Your task to perform on an android device: Open Amazon Image 0: 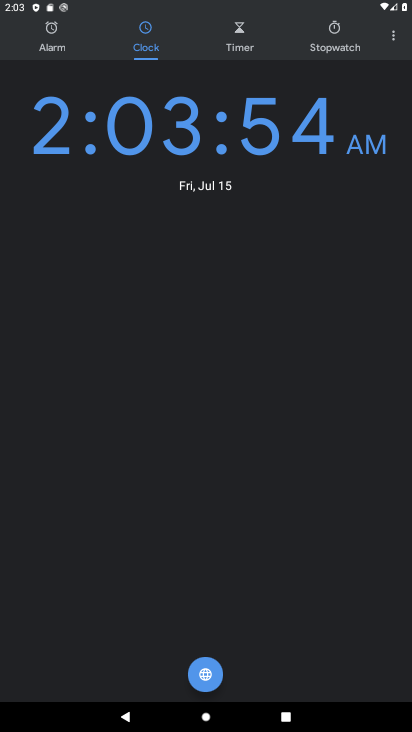
Step 0: press back button
Your task to perform on an android device: Open Amazon Image 1: 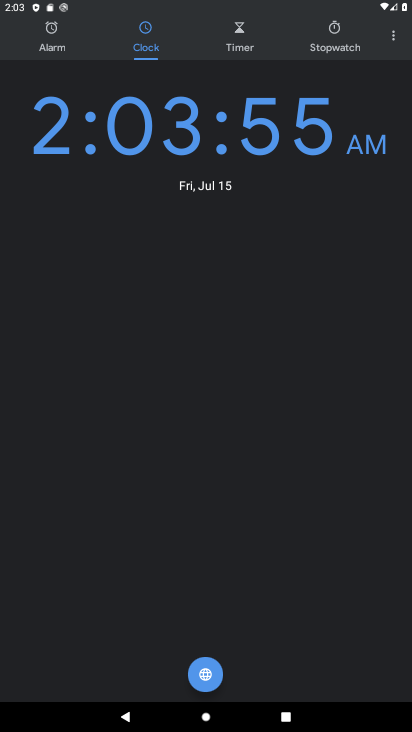
Step 1: press back button
Your task to perform on an android device: Open Amazon Image 2: 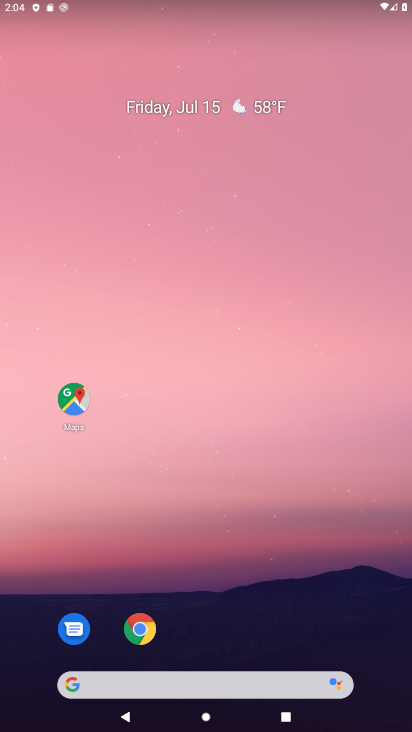
Step 2: click (192, 103)
Your task to perform on an android device: Open Amazon Image 3: 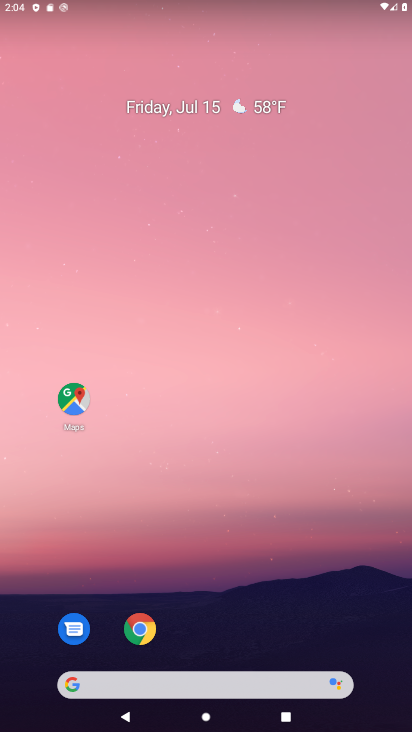
Step 3: drag from (154, 222) to (154, 126)
Your task to perform on an android device: Open Amazon Image 4: 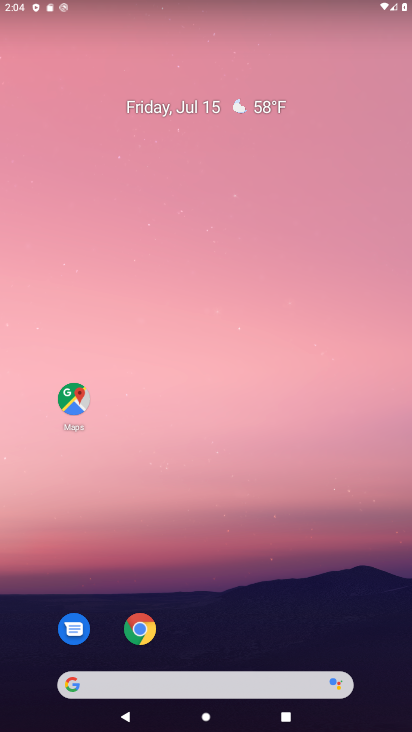
Step 4: drag from (179, 427) to (219, 49)
Your task to perform on an android device: Open Amazon Image 5: 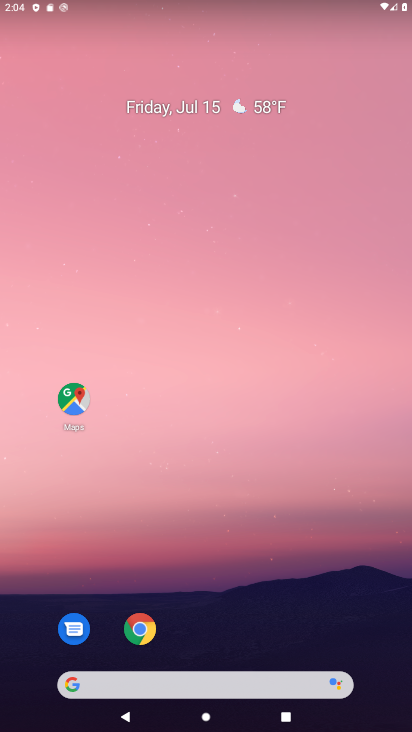
Step 5: drag from (207, 460) to (246, 189)
Your task to perform on an android device: Open Amazon Image 6: 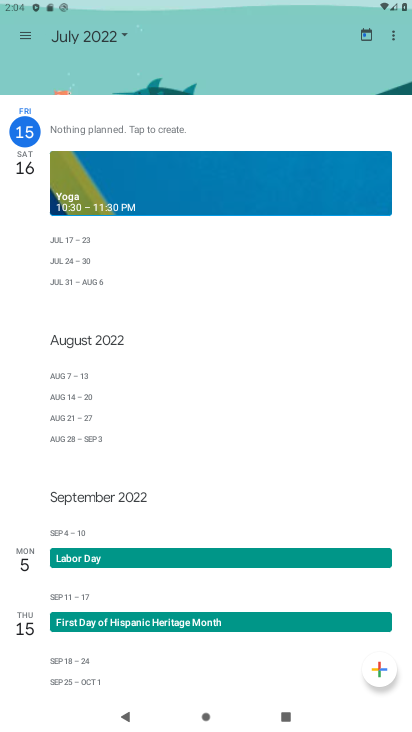
Step 6: click (169, 608)
Your task to perform on an android device: Open Amazon Image 7: 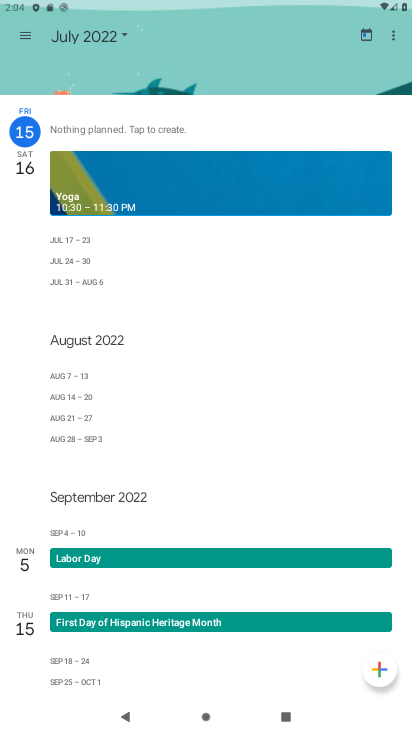
Step 7: drag from (393, 37) to (411, 133)
Your task to perform on an android device: Open Amazon Image 8: 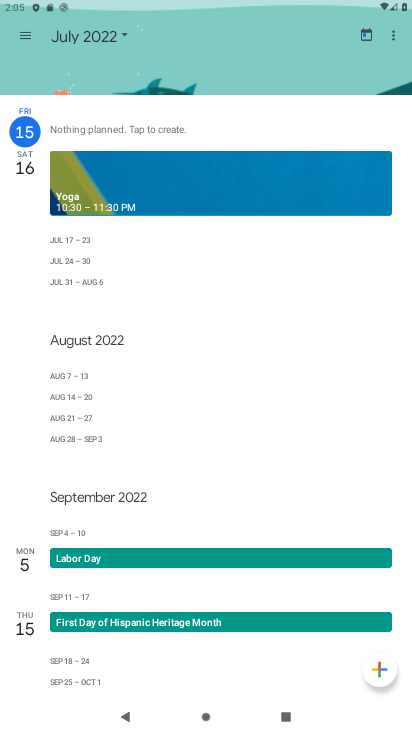
Step 8: press back button
Your task to perform on an android device: Open Amazon Image 9: 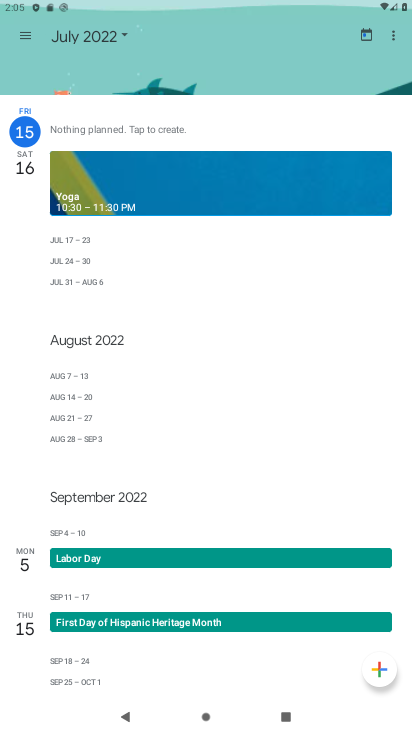
Step 9: press back button
Your task to perform on an android device: Open Amazon Image 10: 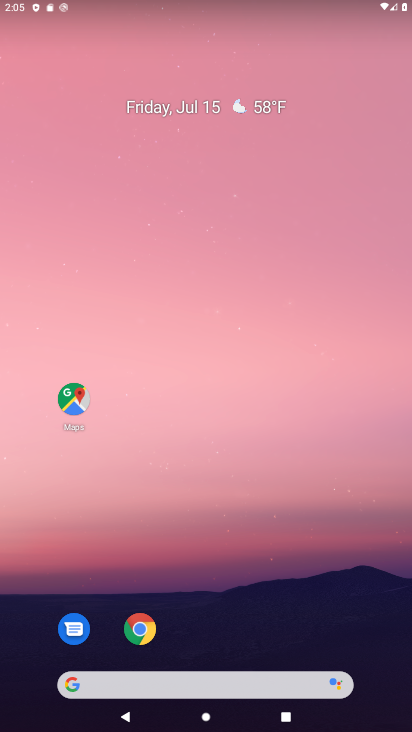
Step 10: drag from (211, 351) to (200, 153)
Your task to perform on an android device: Open Amazon Image 11: 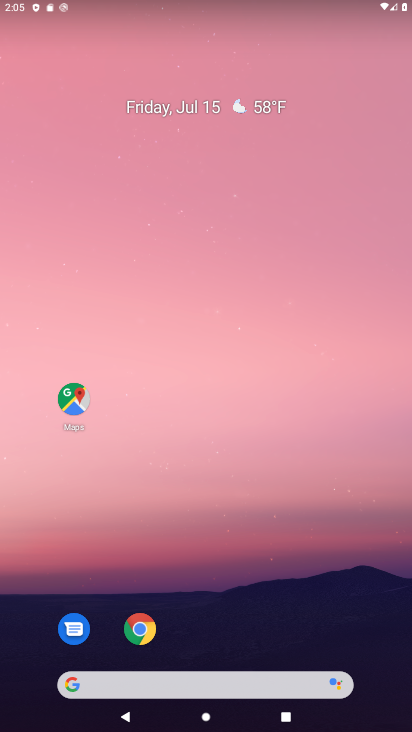
Step 11: drag from (216, 630) to (140, 357)
Your task to perform on an android device: Open Amazon Image 12: 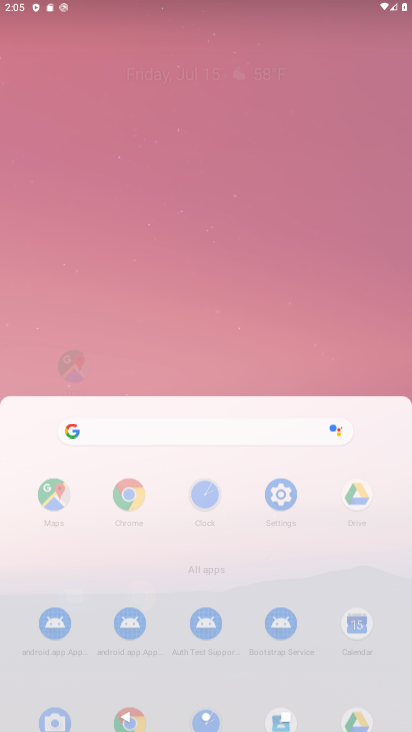
Step 12: drag from (189, 493) to (194, 318)
Your task to perform on an android device: Open Amazon Image 13: 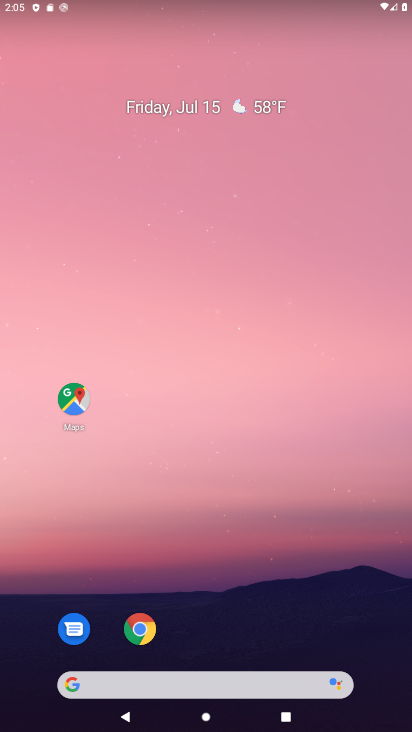
Step 13: drag from (199, 614) to (113, 46)
Your task to perform on an android device: Open Amazon Image 14: 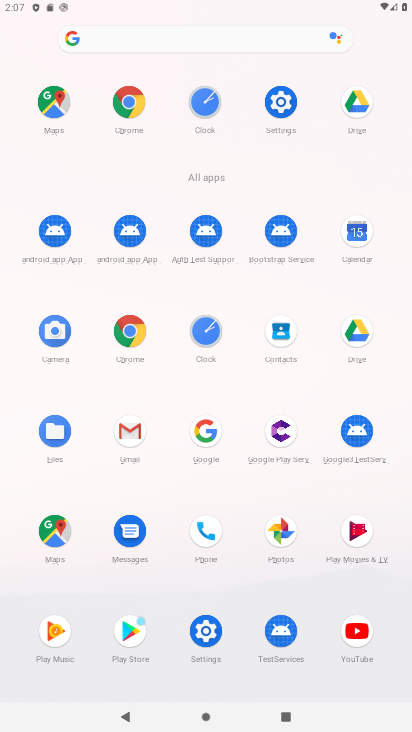
Step 14: press back button
Your task to perform on an android device: Open Amazon Image 15: 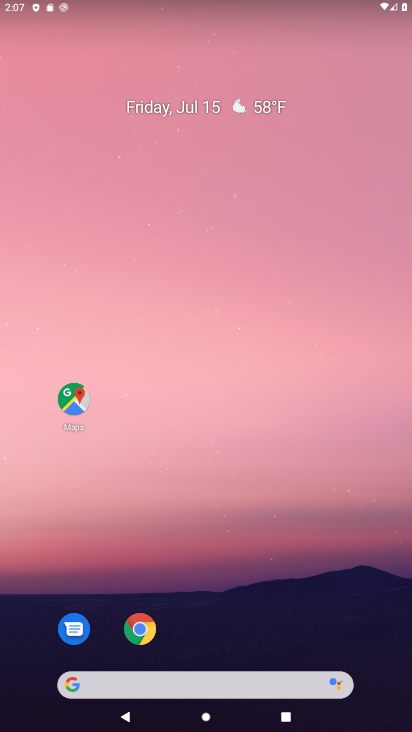
Step 15: drag from (253, 415) to (240, 50)
Your task to perform on an android device: Open Amazon Image 16: 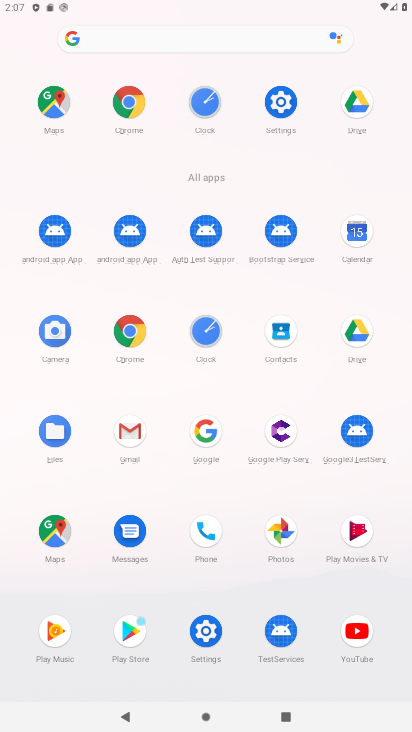
Step 16: click (123, 107)
Your task to perform on an android device: Open Amazon Image 17: 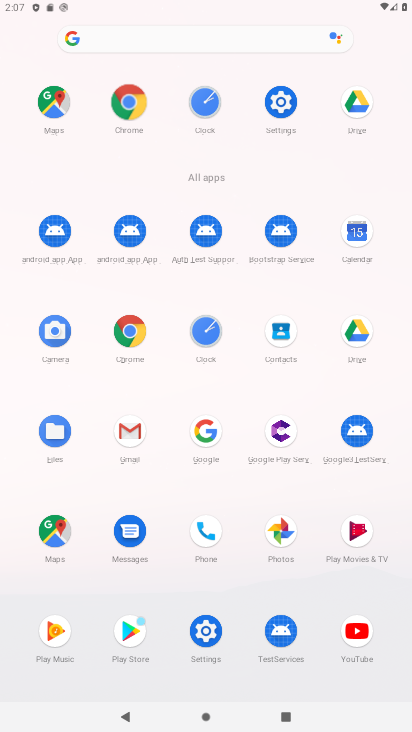
Step 17: click (123, 107)
Your task to perform on an android device: Open Amazon Image 18: 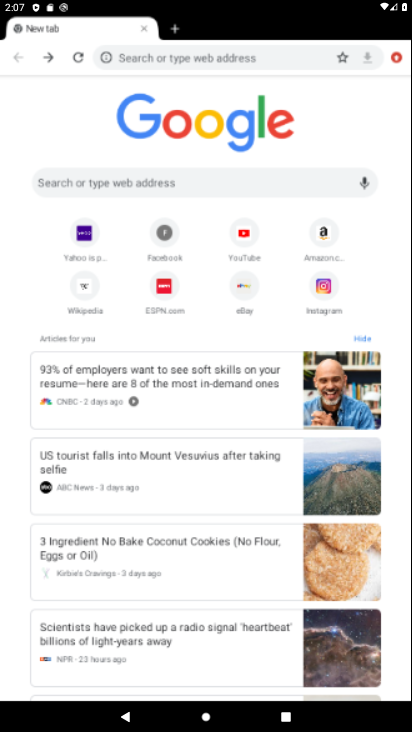
Step 18: click (123, 107)
Your task to perform on an android device: Open Amazon Image 19: 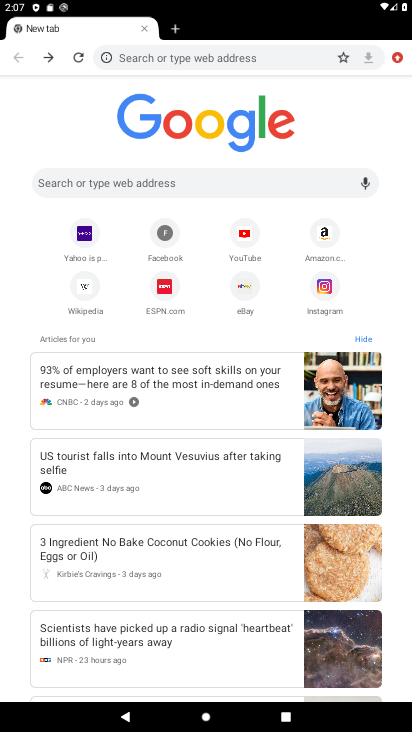
Step 19: click (325, 226)
Your task to perform on an android device: Open Amazon Image 20: 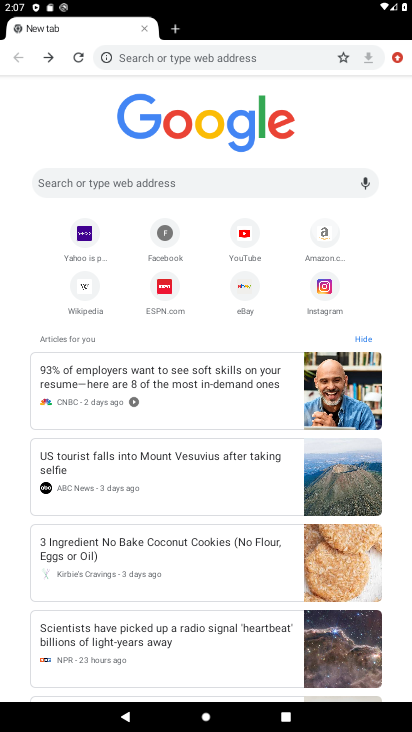
Step 20: click (328, 227)
Your task to perform on an android device: Open Amazon Image 21: 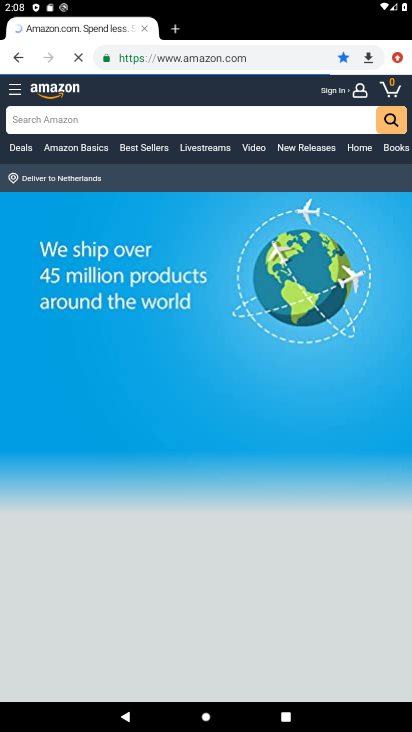
Step 21: task complete